Your task to perform on an android device: turn on sleep mode Image 0: 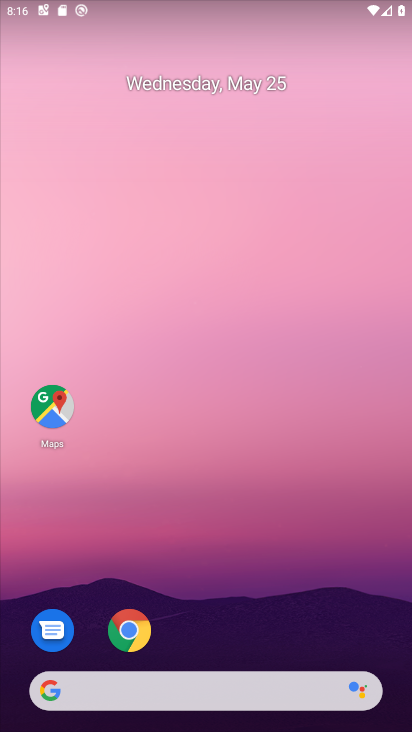
Step 0: drag from (201, 610) to (257, 120)
Your task to perform on an android device: turn on sleep mode Image 1: 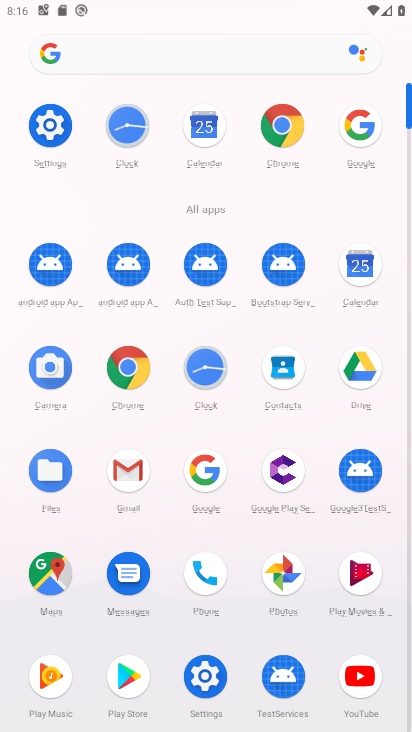
Step 1: click (47, 126)
Your task to perform on an android device: turn on sleep mode Image 2: 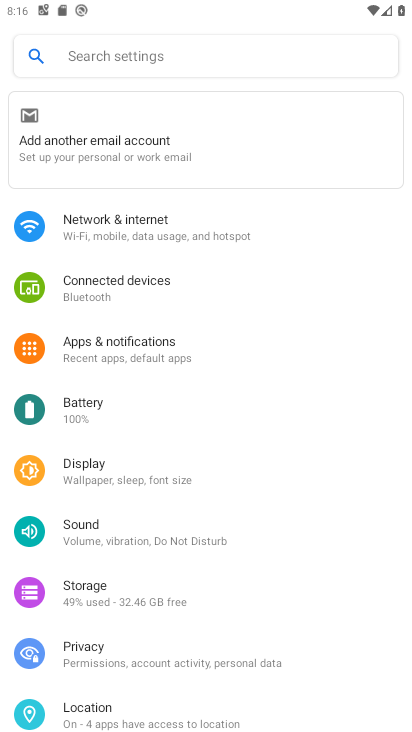
Step 2: click (130, 473)
Your task to perform on an android device: turn on sleep mode Image 3: 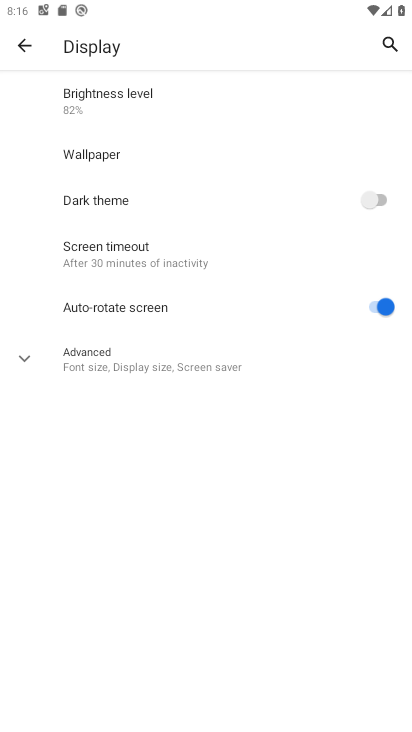
Step 3: click (101, 256)
Your task to perform on an android device: turn on sleep mode Image 4: 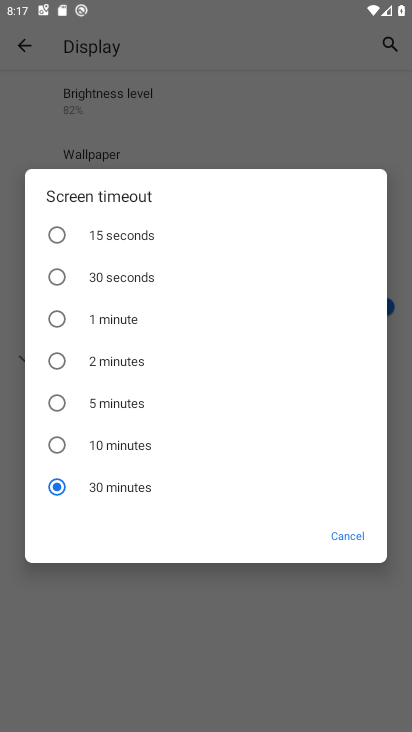
Step 4: task complete